Your task to perform on an android device: delete a single message in the gmail app Image 0: 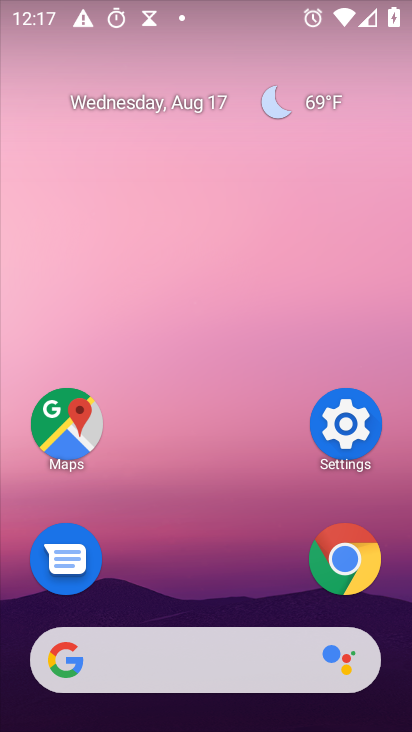
Step 0: drag from (152, 620) to (277, 192)
Your task to perform on an android device: delete a single message in the gmail app Image 1: 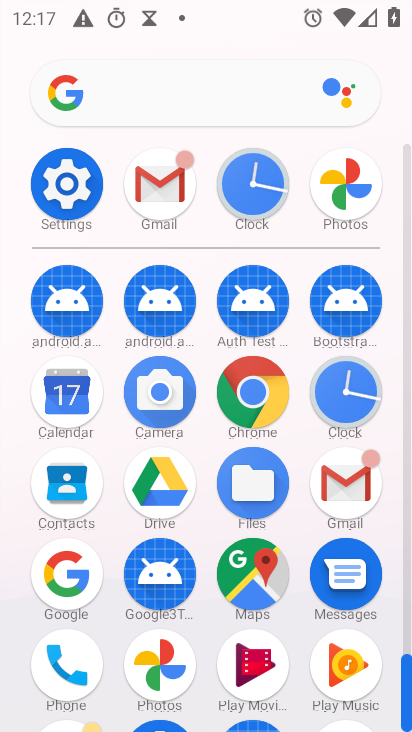
Step 1: click (151, 200)
Your task to perform on an android device: delete a single message in the gmail app Image 2: 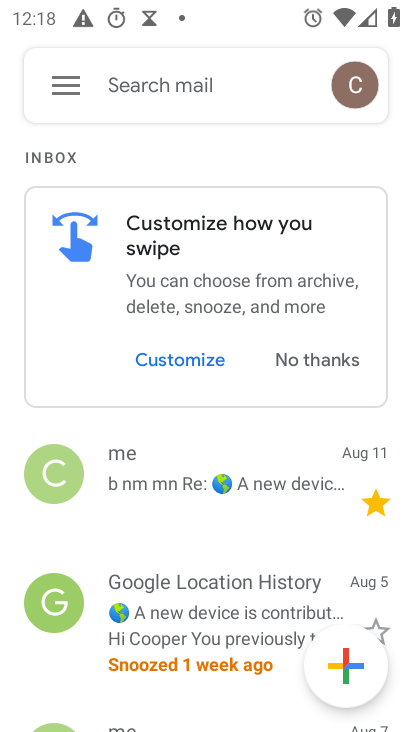
Step 2: click (63, 474)
Your task to perform on an android device: delete a single message in the gmail app Image 3: 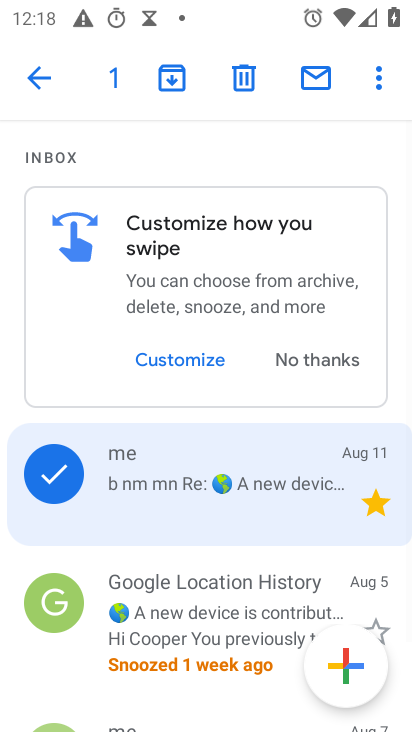
Step 3: click (243, 79)
Your task to perform on an android device: delete a single message in the gmail app Image 4: 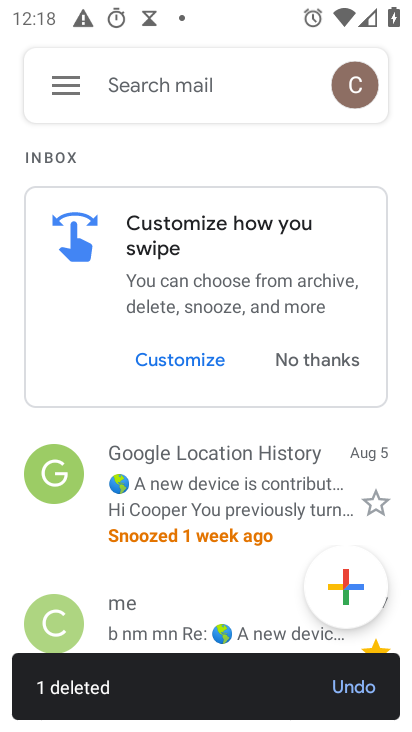
Step 4: task complete